Your task to perform on an android device: turn on notifications settings in the gmail app Image 0: 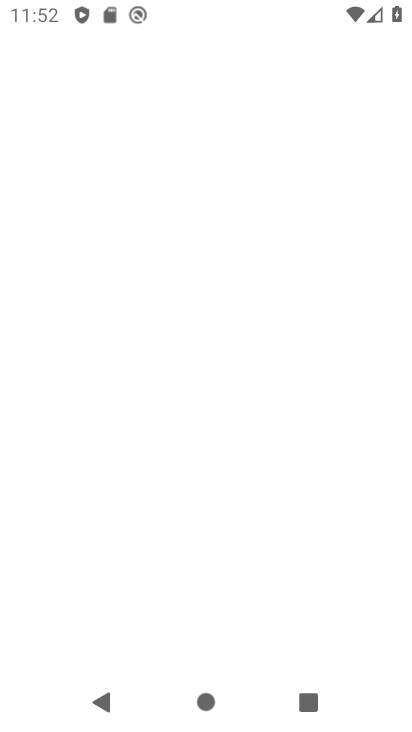
Step 0: press home button
Your task to perform on an android device: turn on notifications settings in the gmail app Image 1: 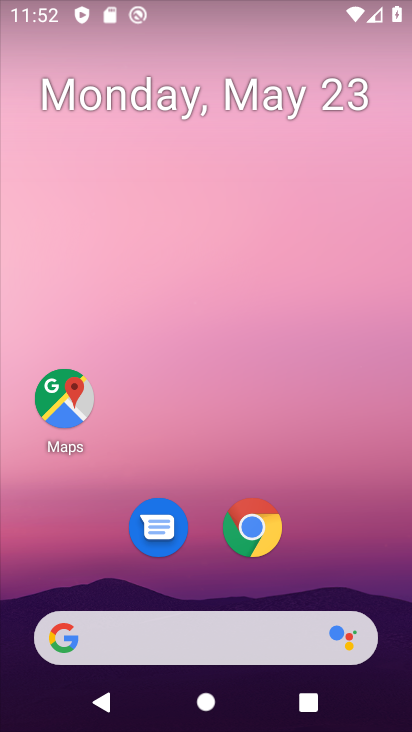
Step 1: drag from (248, 634) to (301, 236)
Your task to perform on an android device: turn on notifications settings in the gmail app Image 2: 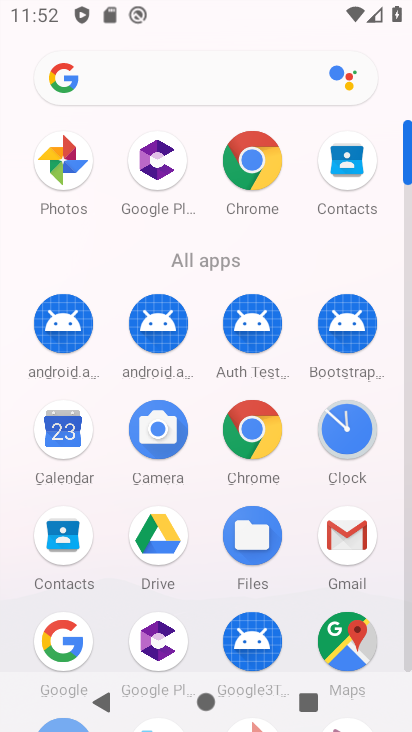
Step 2: click (352, 543)
Your task to perform on an android device: turn on notifications settings in the gmail app Image 3: 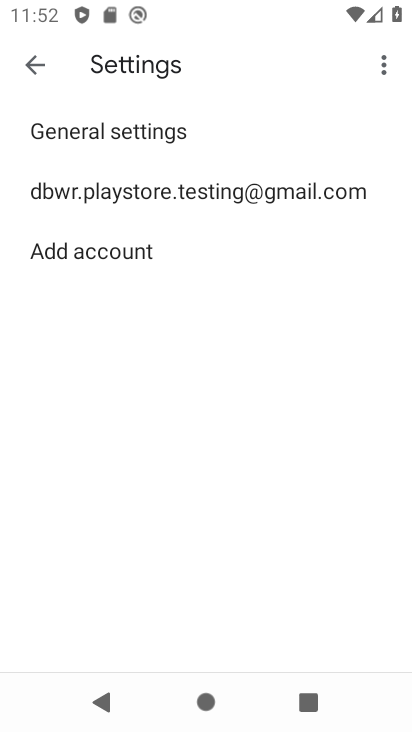
Step 3: click (230, 195)
Your task to perform on an android device: turn on notifications settings in the gmail app Image 4: 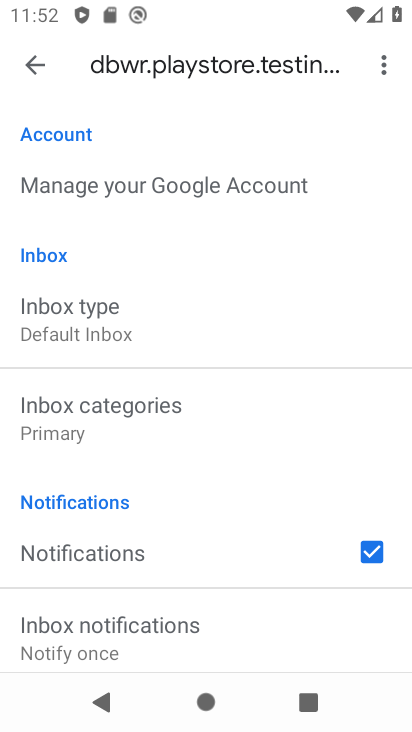
Step 4: task complete